Your task to perform on an android device: Search for vegetarian restaurants on Maps Image 0: 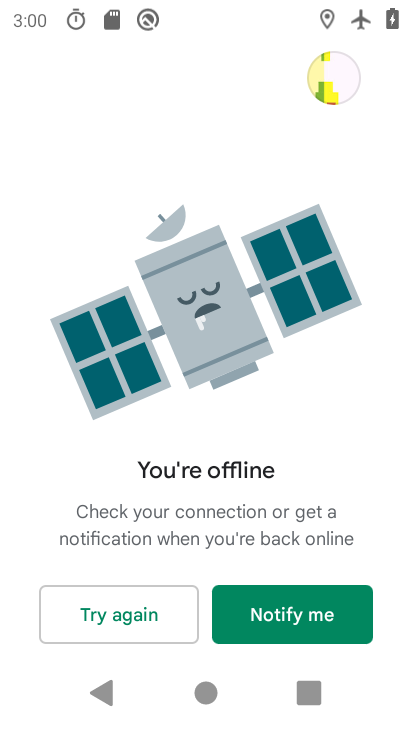
Step 0: press home button
Your task to perform on an android device: Search for vegetarian restaurants on Maps Image 1: 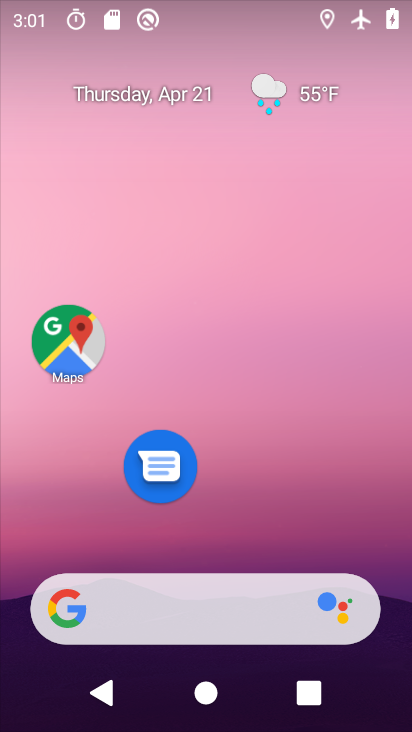
Step 1: drag from (286, 521) to (266, 106)
Your task to perform on an android device: Search for vegetarian restaurants on Maps Image 2: 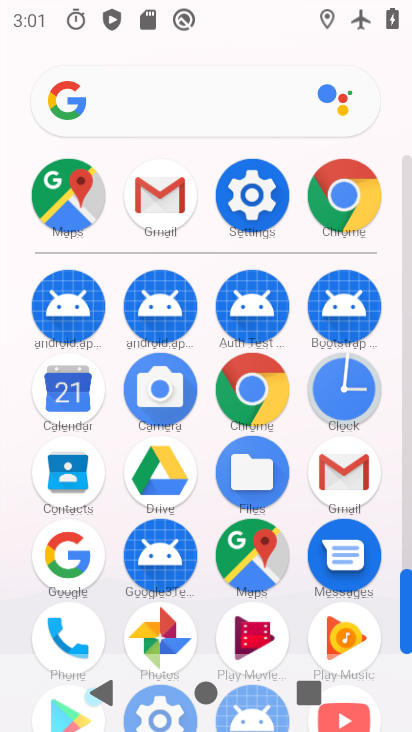
Step 2: click (257, 552)
Your task to perform on an android device: Search for vegetarian restaurants on Maps Image 3: 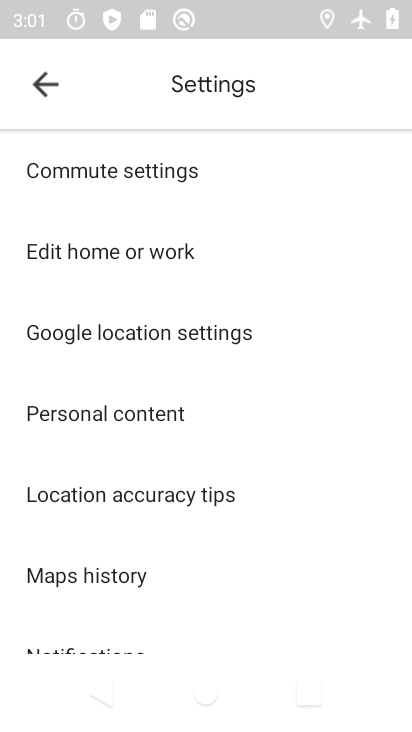
Step 3: press back button
Your task to perform on an android device: Search for vegetarian restaurants on Maps Image 4: 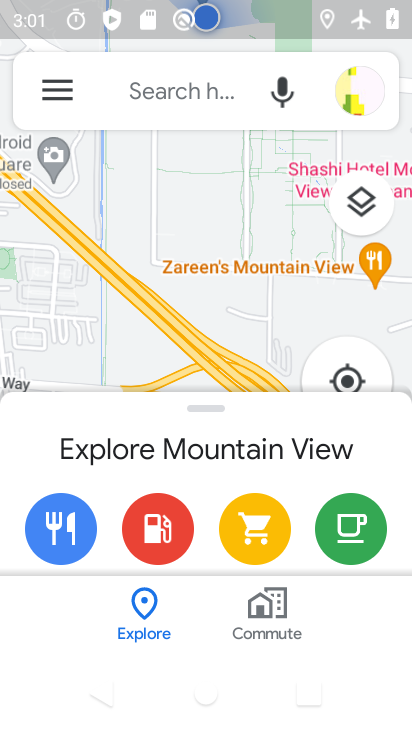
Step 4: click (229, 108)
Your task to perform on an android device: Search for vegetarian restaurants on Maps Image 5: 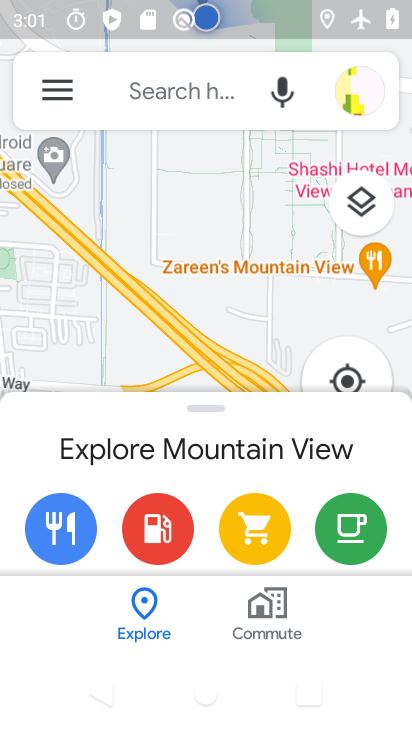
Step 5: click (229, 108)
Your task to perform on an android device: Search for vegetarian restaurants on Maps Image 6: 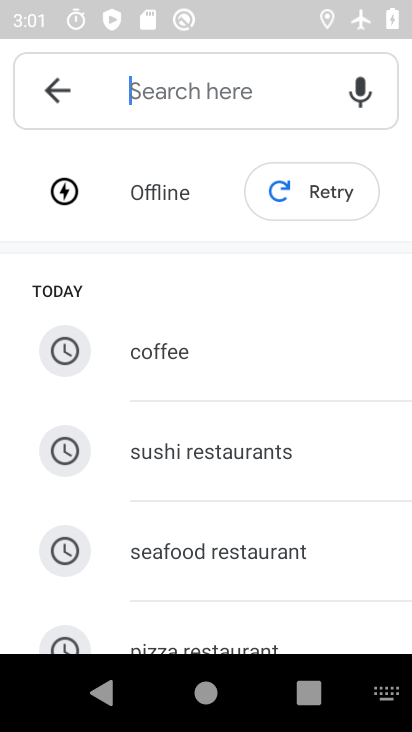
Step 6: type "vegetarian restaurant"
Your task to perform on an android device: Search for vegetarian restaurants on Maps Image 7: 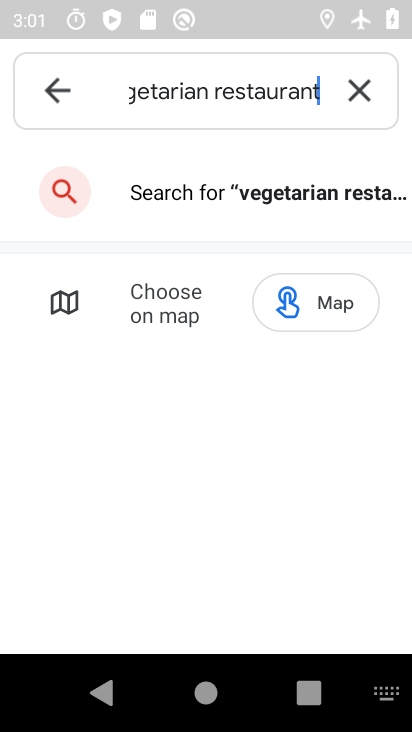
Step 7: task complete